Your task to perform on an android device: Open CNN.com Image 0: 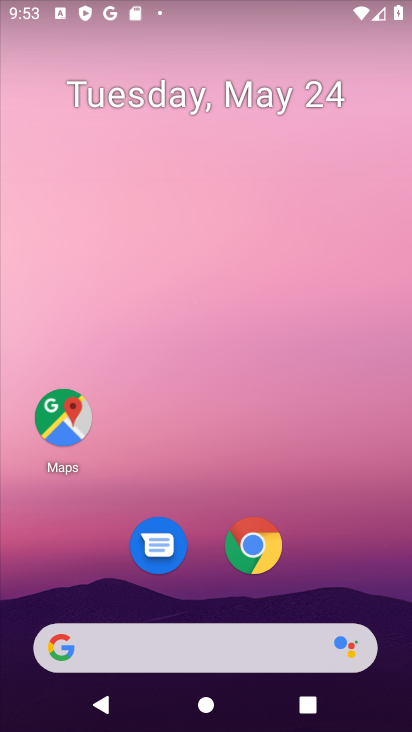
Step 0: click (287, 641)
Your task to perform on an android device: Open CNN.com Image 1: 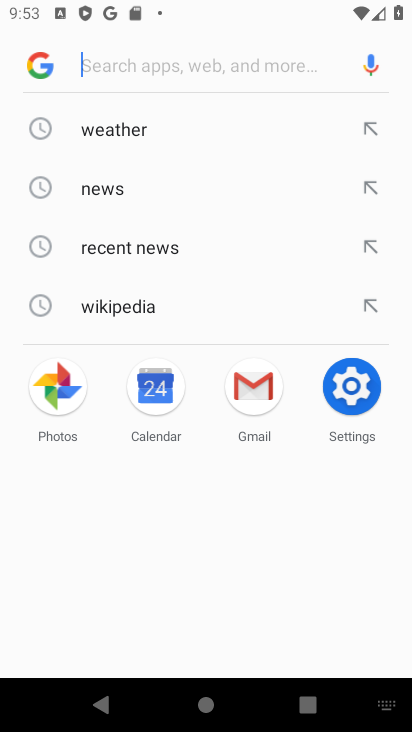
Step 1: type "cnn.com"
Your task to perform on an android device: Open CNN.com Image 2: 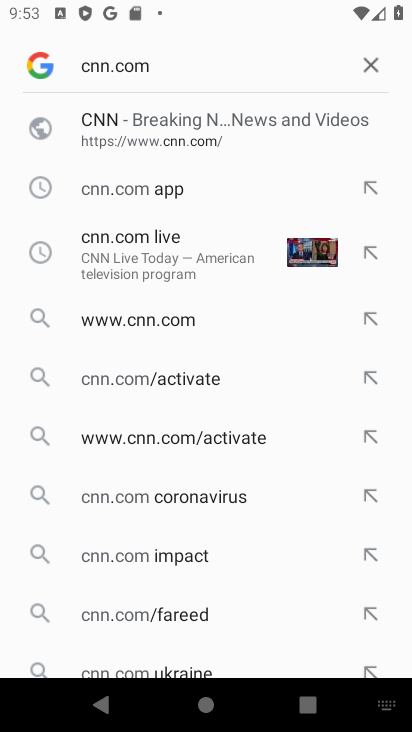
Step 2: click (111, 123)
Your task to perform on an android device: Open CNN.com Image 3: 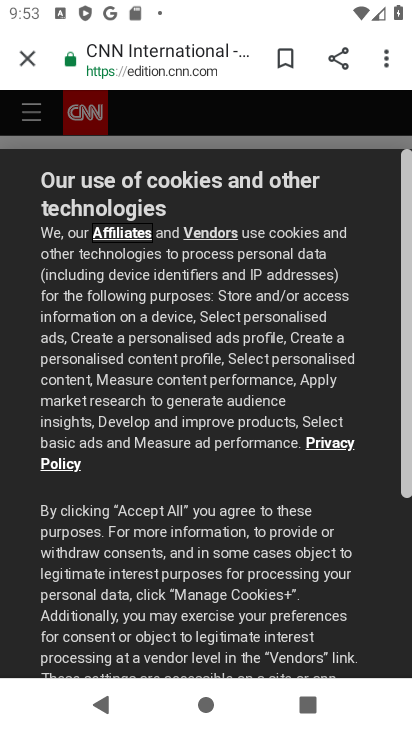
Step 3: task complete